Your task to perform on an android device: Search for "lg ultragear" on ebay, select the first entry, and add it to the cart. Image 0: 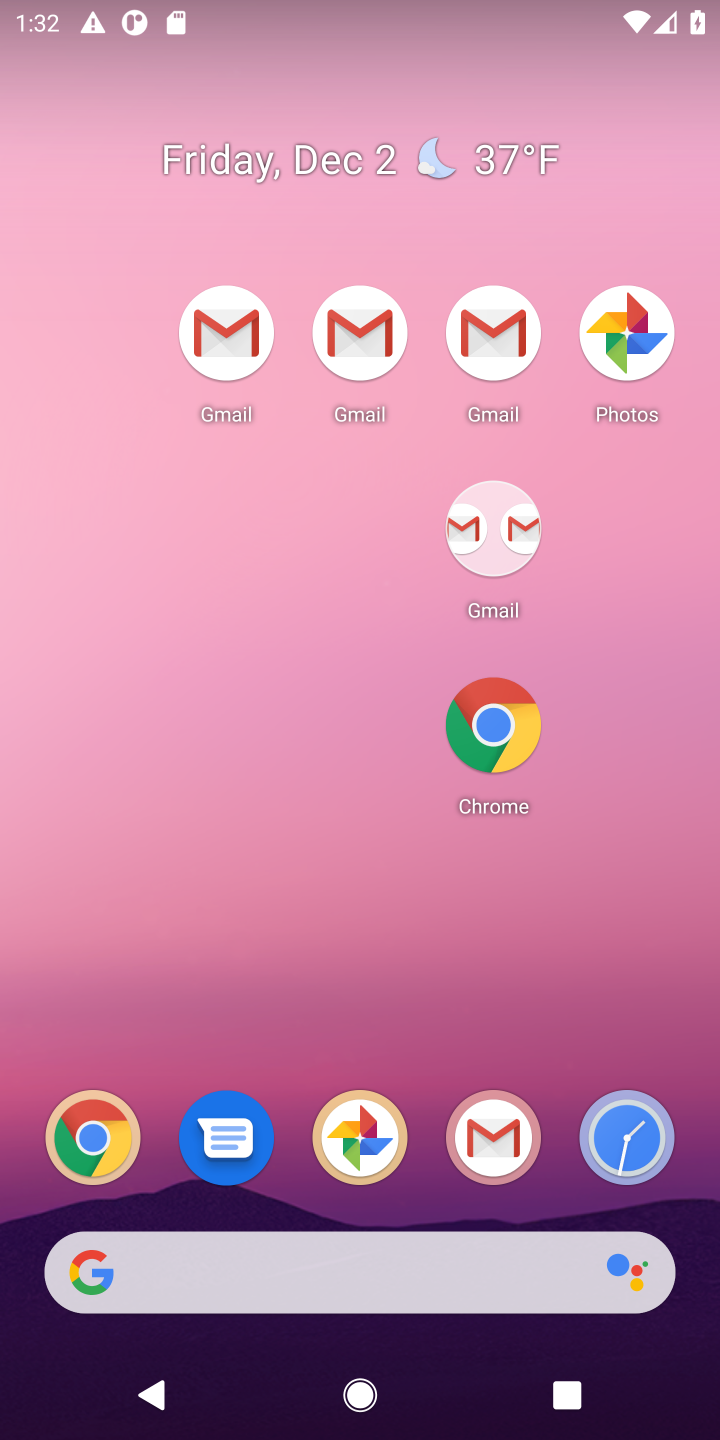
Step 0: drag from (374, 424) to (435, 103)
Your task to perform on an android device: Search for "lg ultragear" on ebay, select the first entry, and add it to the cart. Image 1: 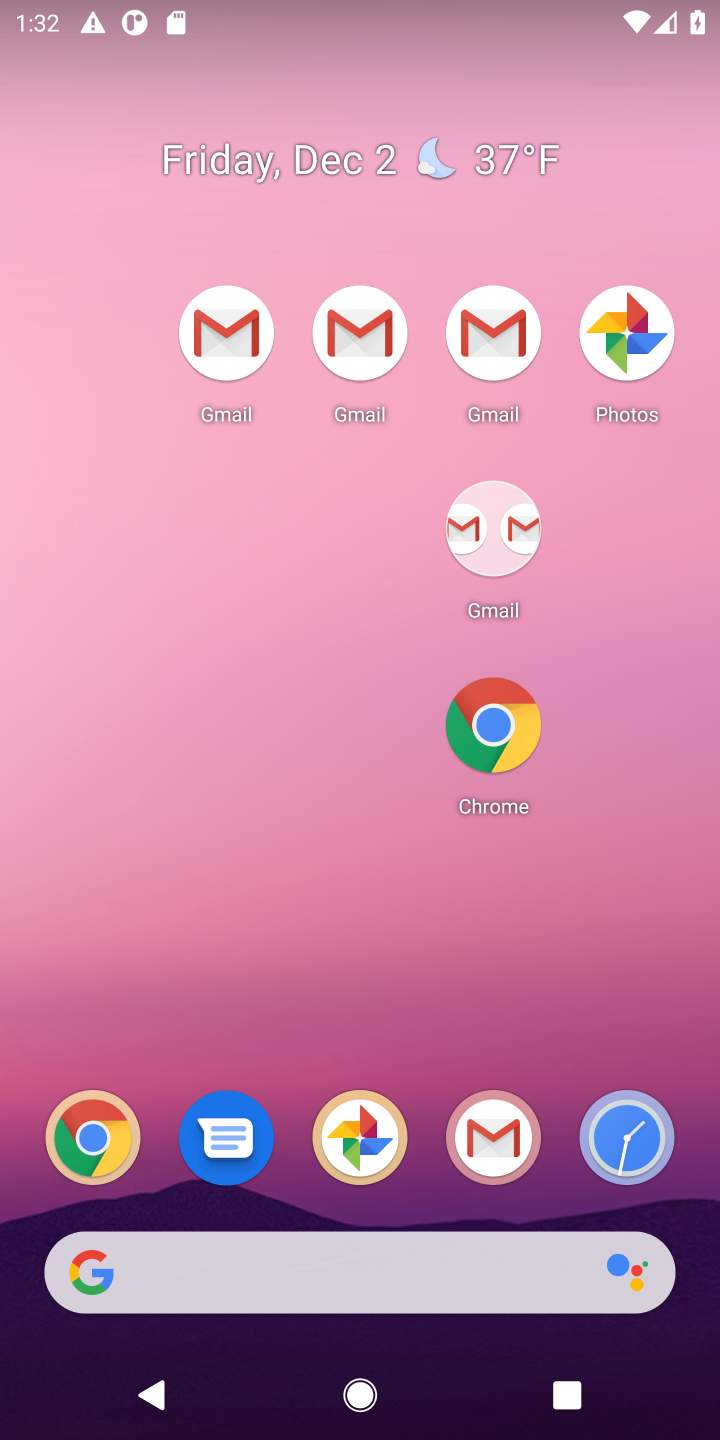
Step 1: drag from (434, 1106) to (404, 626)
Your task to perform on an android device: Search for "lg ultragear" on ebay, select the first entry, and add it to the cart. Image 2: 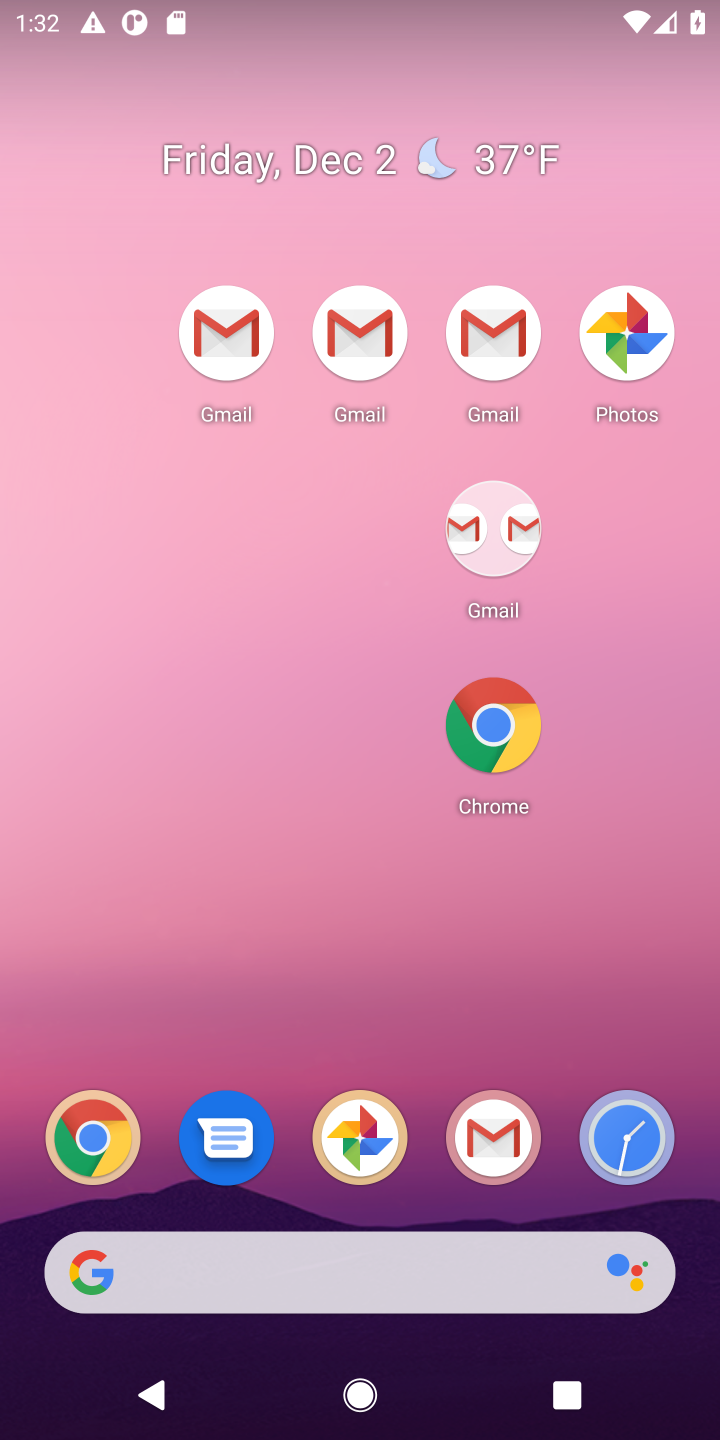
Step 2: drag from (237, 1101) to (333, 250)
Your task to perform on an android device: Search for "lg ultragear" on ebay, select the first entry, and add it to the cart. Image 3: 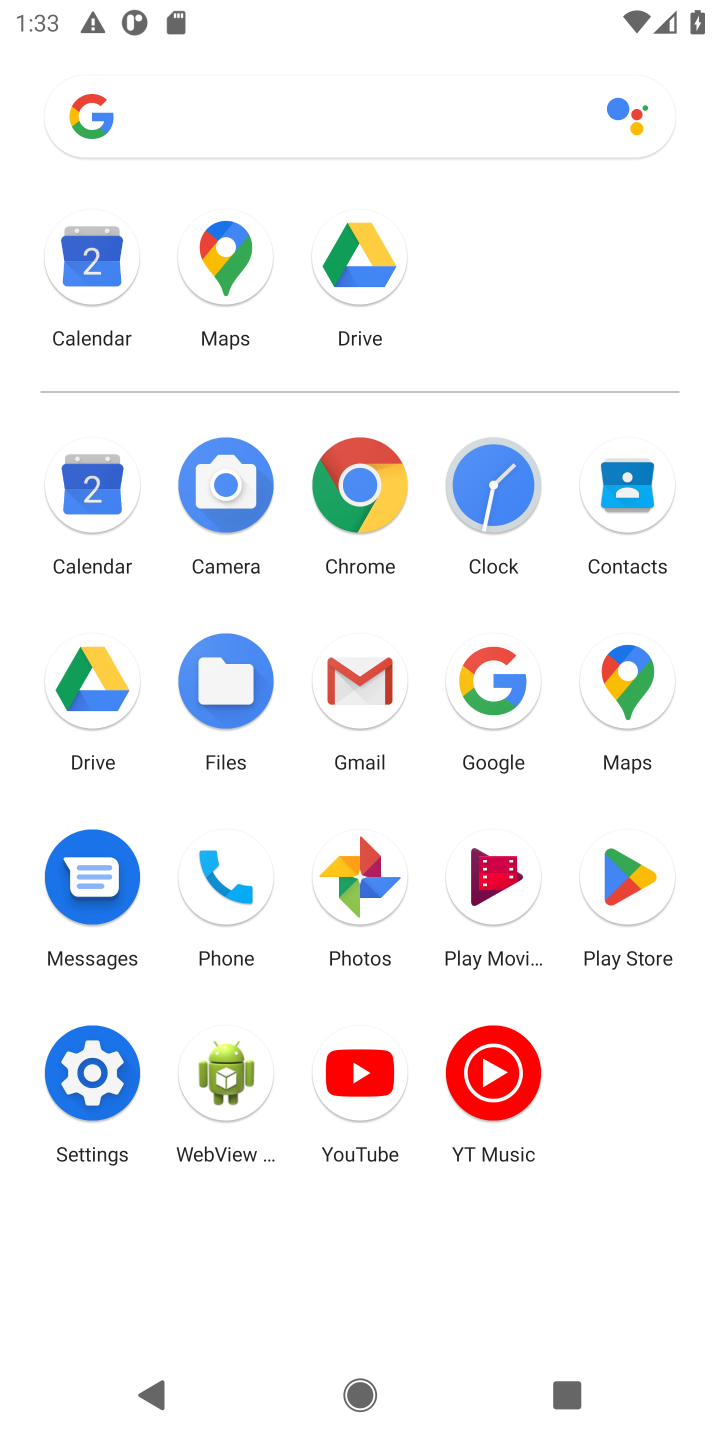
Step 3: click (499, 728)
Your task to perform on an android device: Search for "lg ultragear" on ebay, select the first entry, and add it to the cart. Image 4: 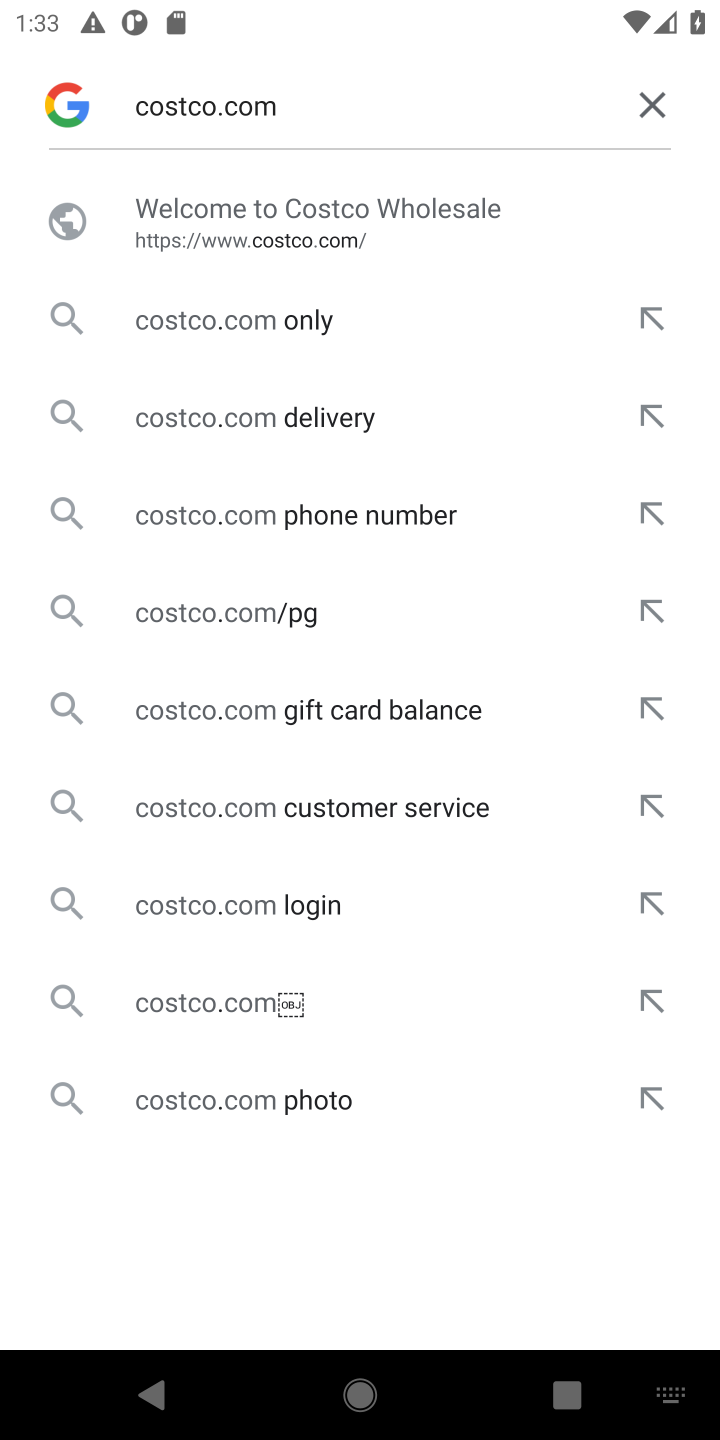
Step 4: click (648, 111)
Your task to perform on an android device: Search for "lg ultragear" on ebay, select the first entry, and add it to the cart. Image 5: 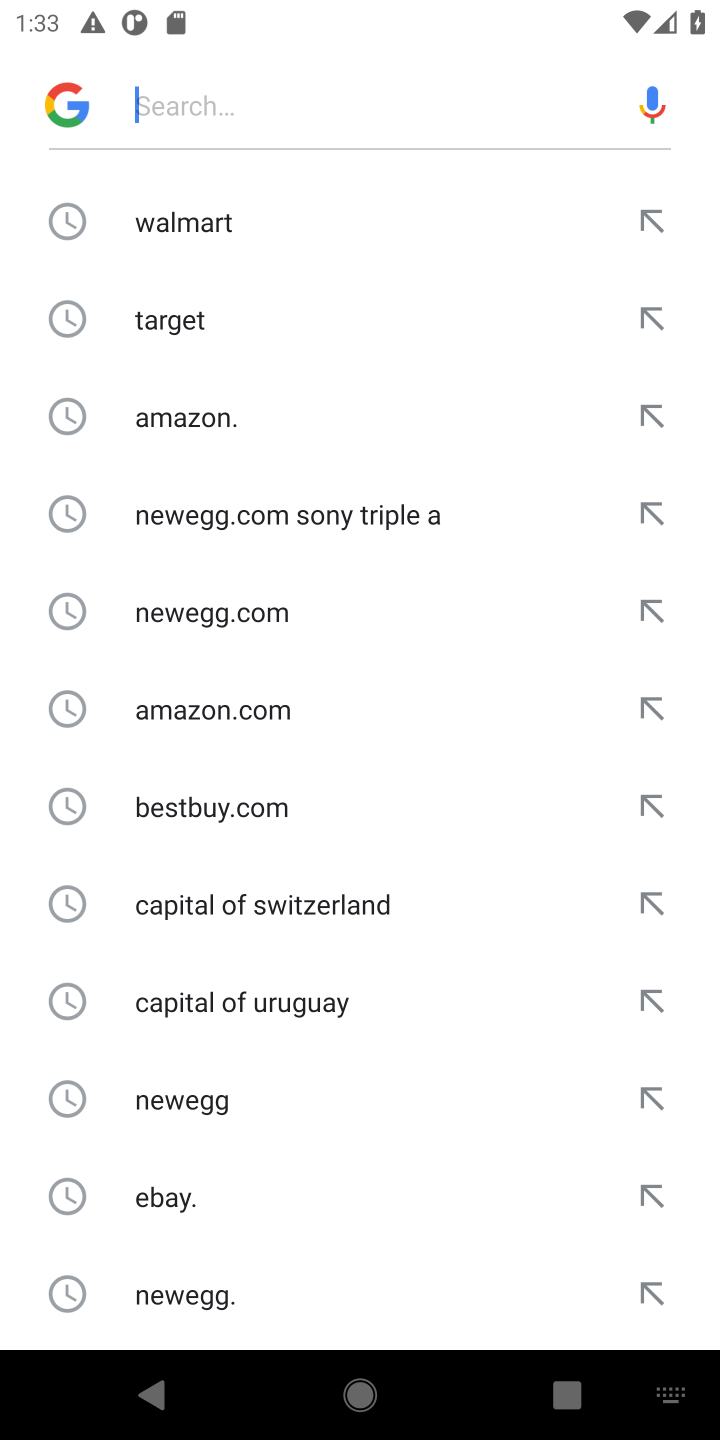
Step 5: click (261, 1193)
Your task to perform on an android device: Search for "lg ultragear" on ebay, select the first entry, and add it to the cart. Image 6: 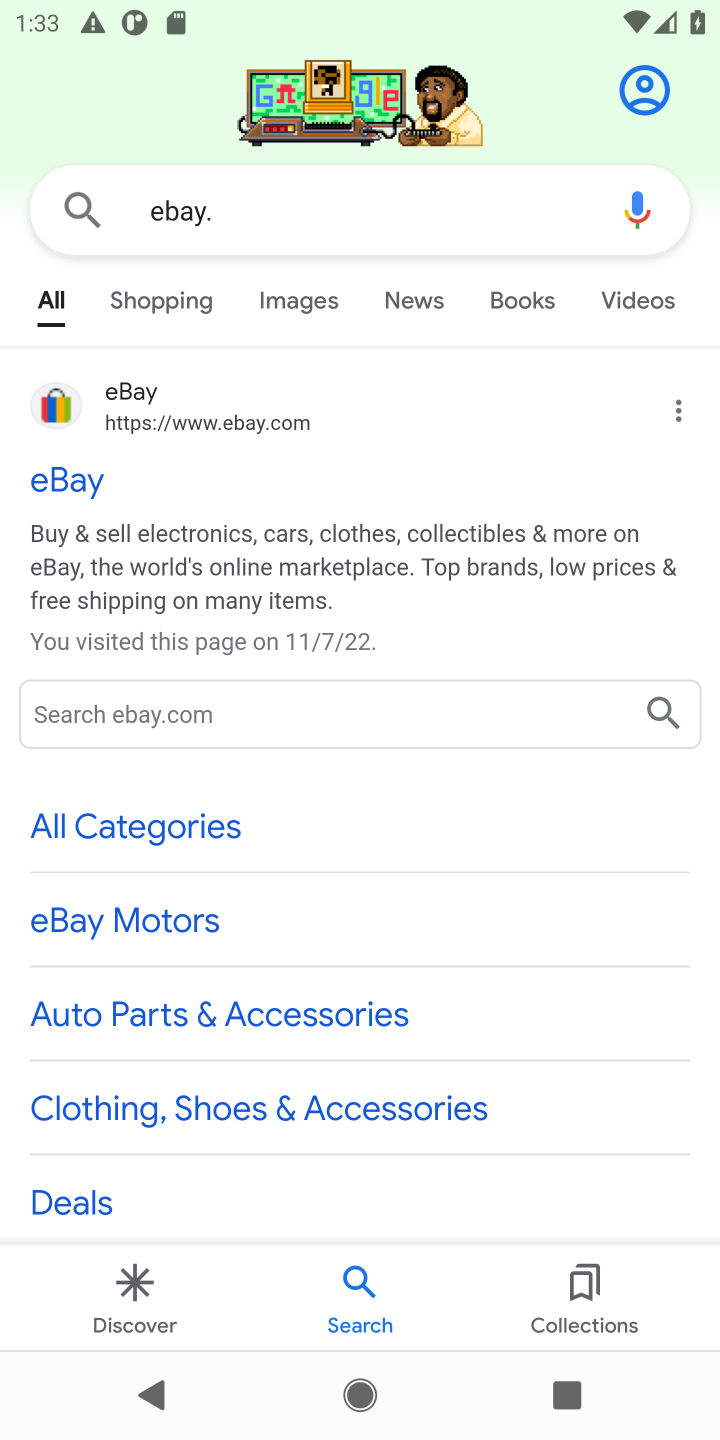
Step 6: click (91, 490)
Your task to perform on an android device: Search for "lg ultragear" on ebay, select the first entry, and add it to the cart. Image 7: 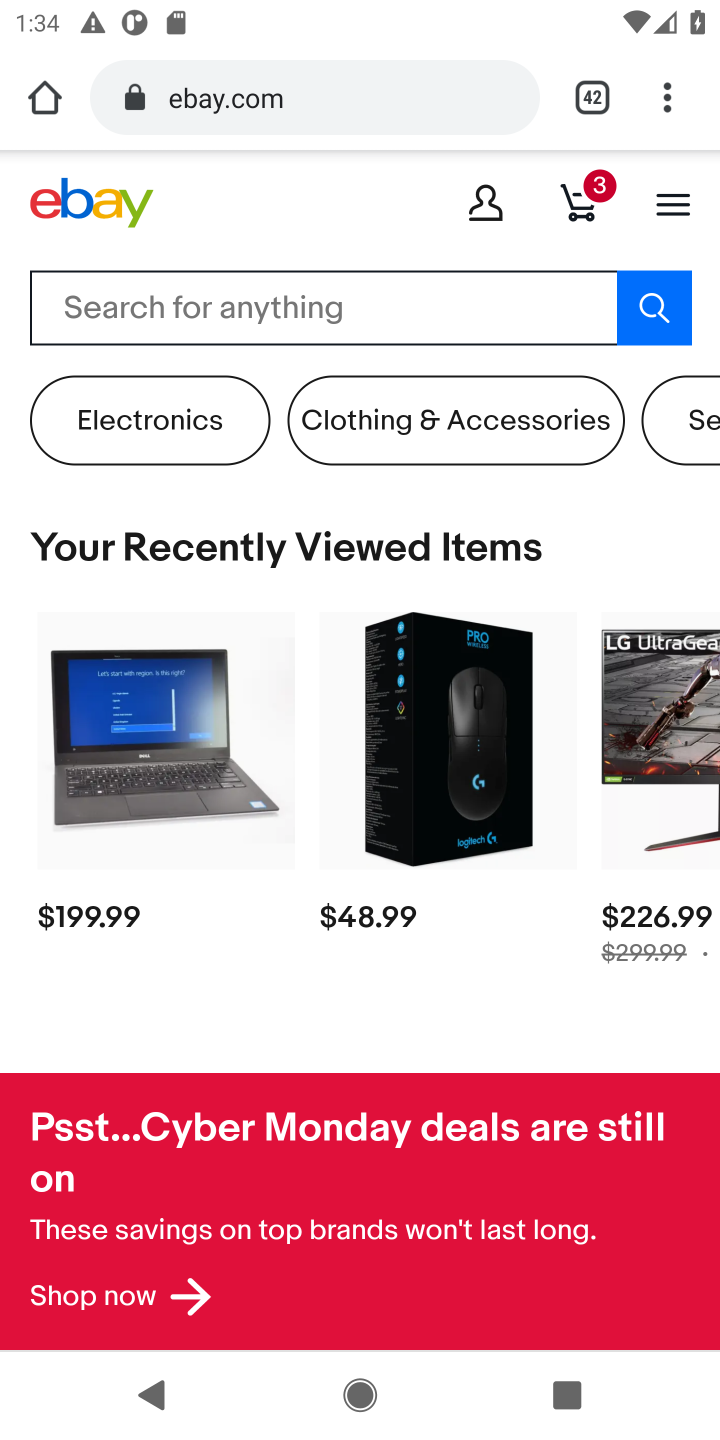
Step 7: click (376, 320)
Your task to perform on an android device: Search for "lg ultragear" on ebay, select the first entry, and add it to the cart. Image 8: 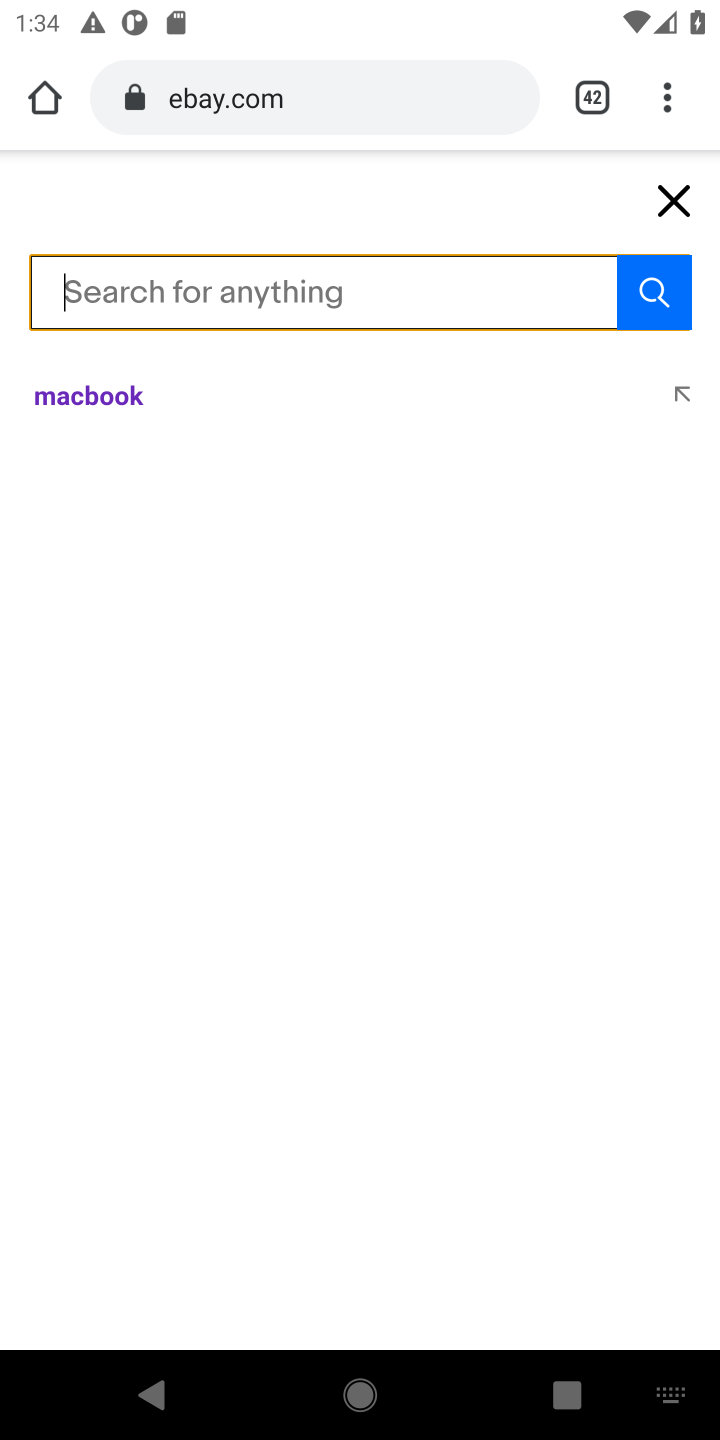
Step 8: type "lg ultragear"
Your task to perform on an android device: Search for "lg ultragear" on ebay, select the first entry, and add it to the cart. Image 9: 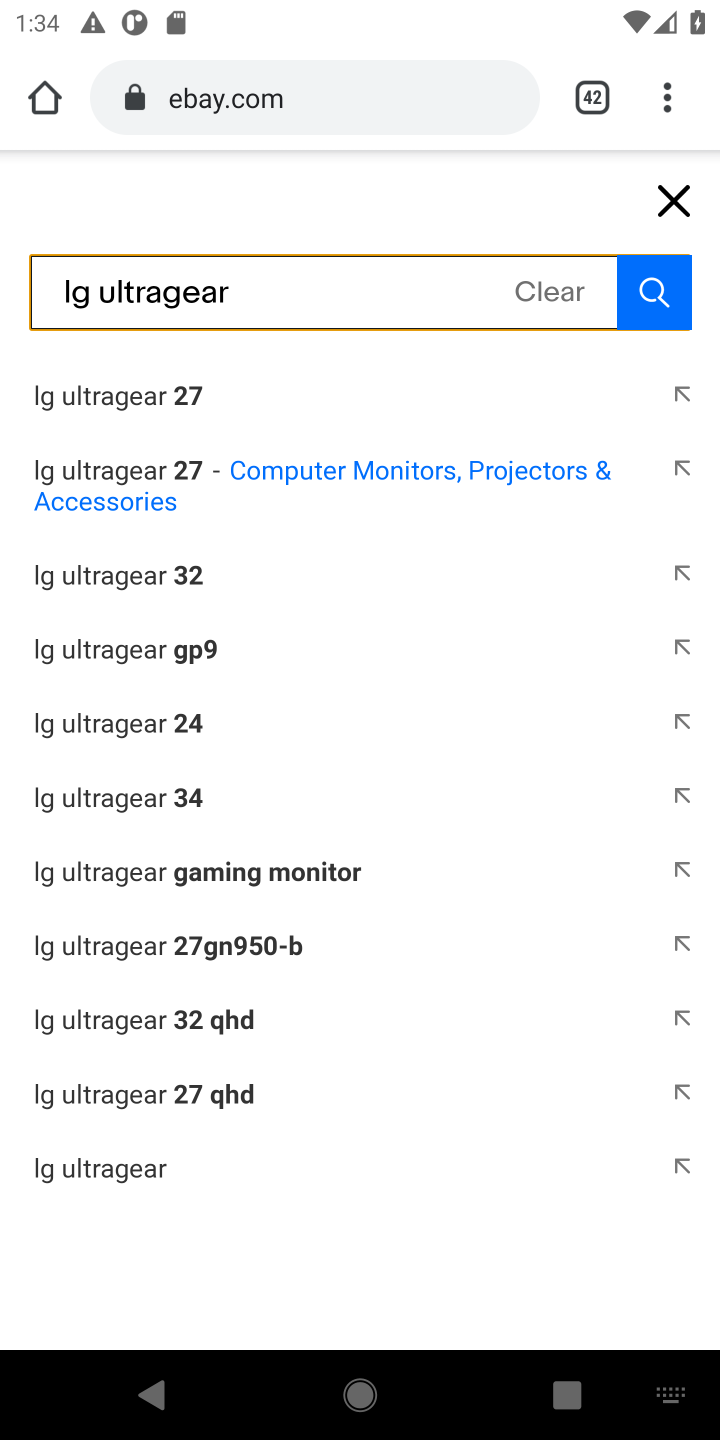
Step 9: click (140, 1164)
Your task to perform on an android device: Search for "lg ultragear" on ebay, select the first entry, and add it to the cart. Image 10: 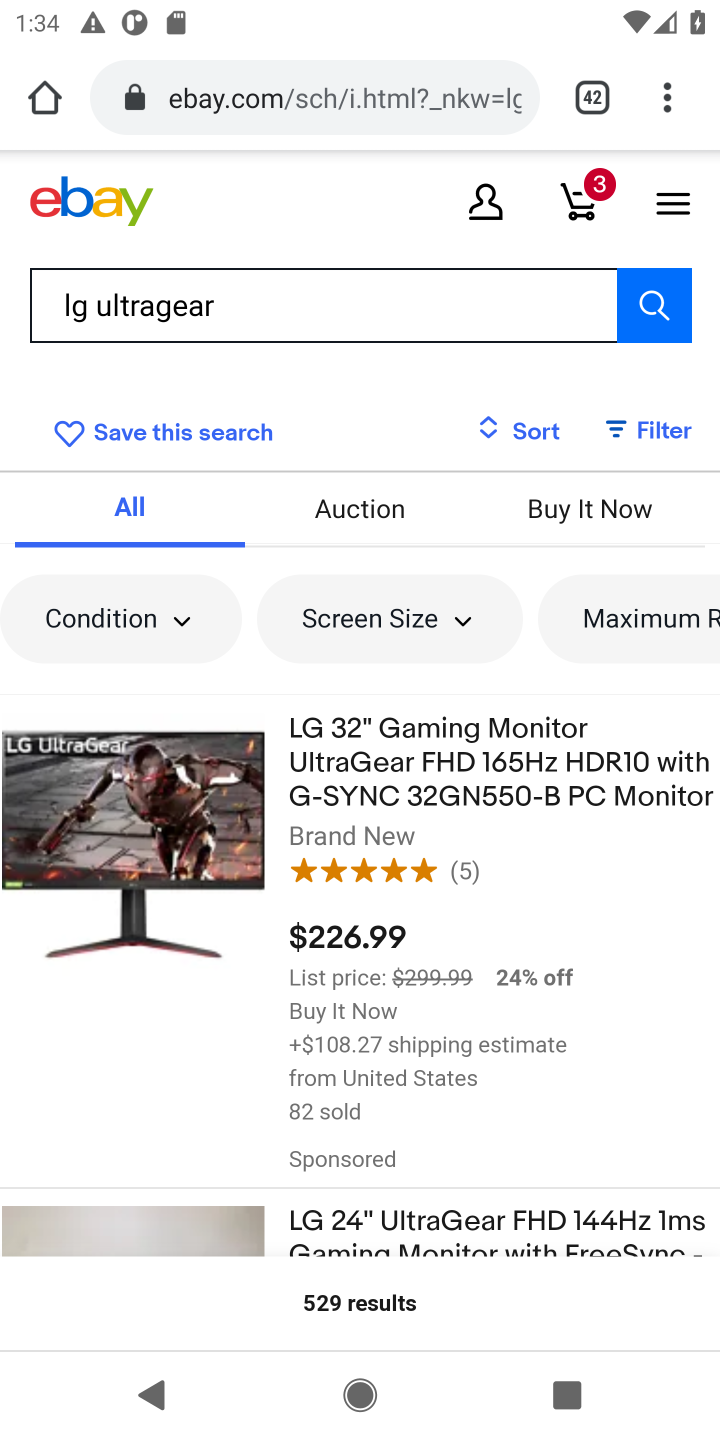
Step 10: click (460, 798)
Your task to perform on an android device: Search for "lg ultragear" on ebay, select the first entry, and add it to the cart. Image 11: 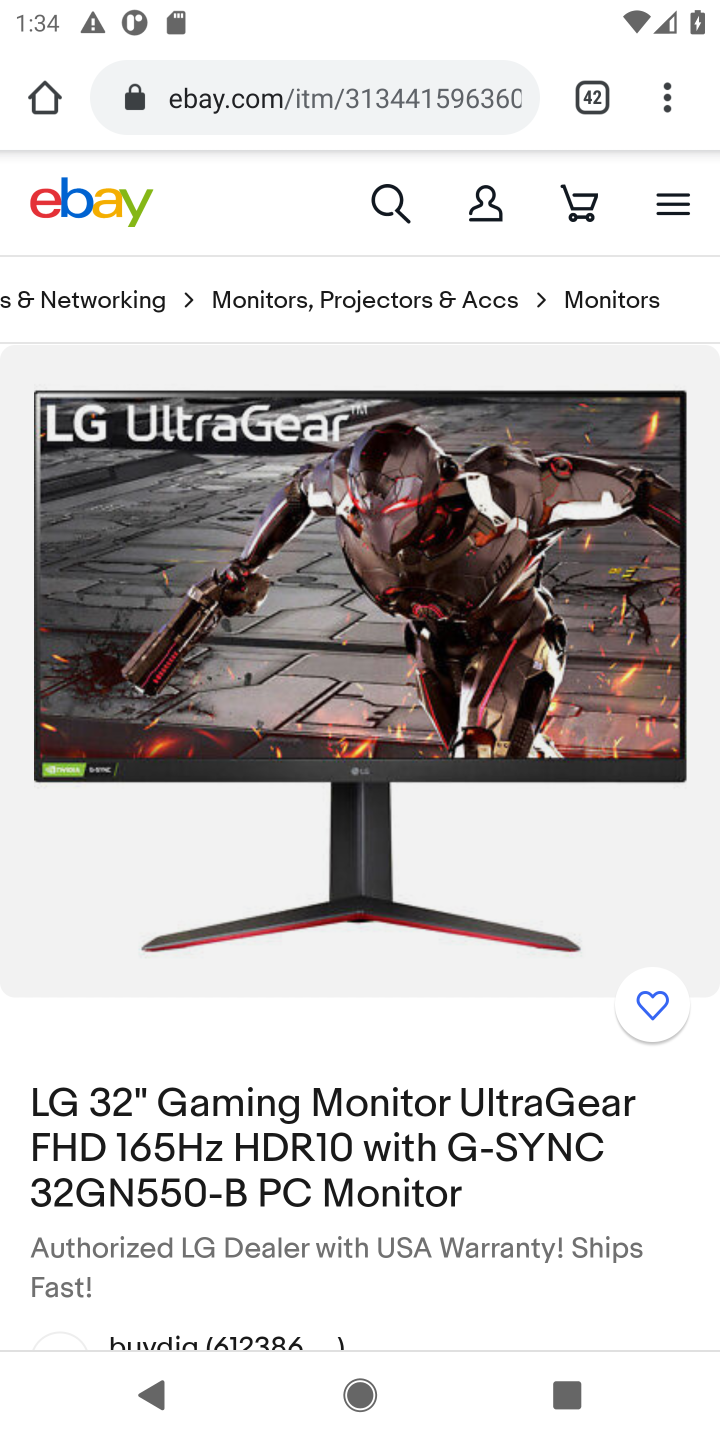
Step 11: drag from (498, 1147) to (526, 707)
Your task to perform on an android device: Search for "lg ultragear" on ebay, select the first entry, and add it to the cart. Image 12: 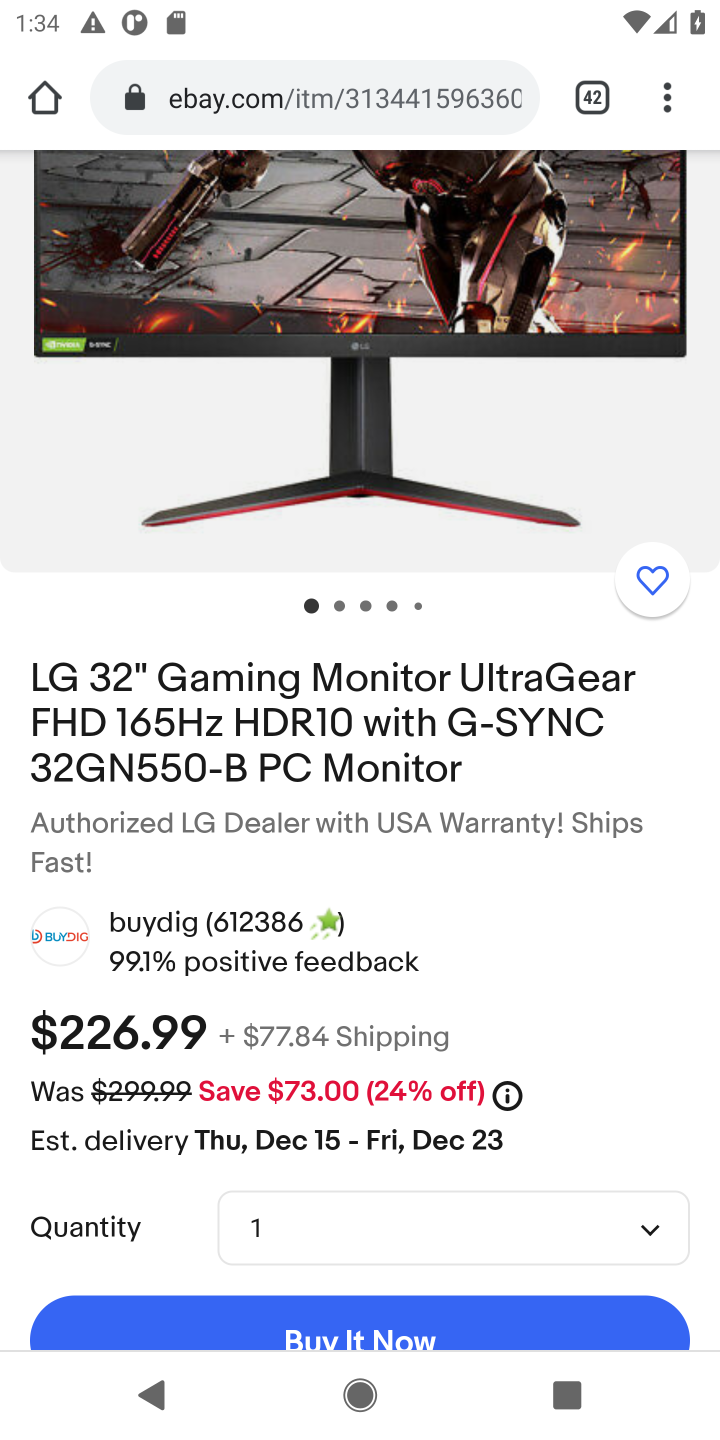
Step 12: drag from (530, 1008) to (485, 688)
Your task to perform on an android device: Search for "lg ultragear" on ebay, select the first entry, and add it to the cart. Image 13: 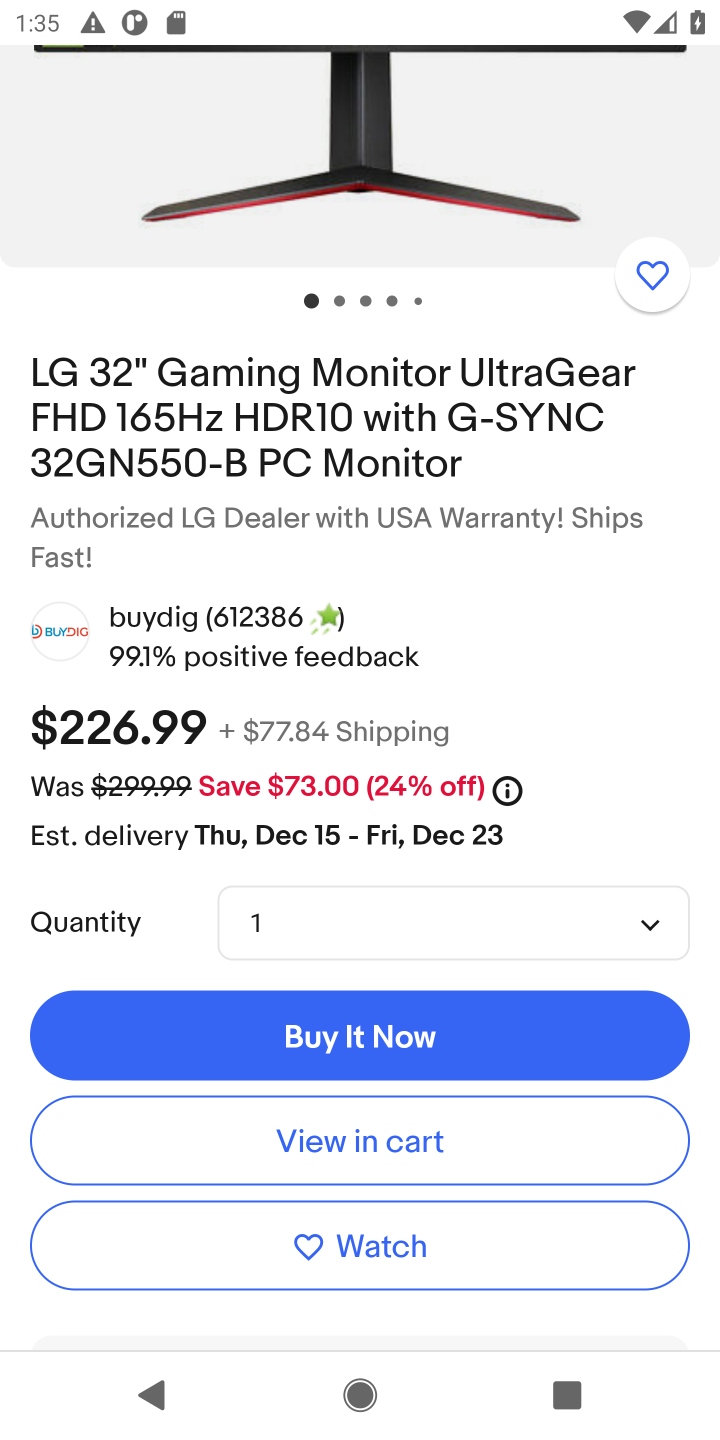
Step 13: click (395, 1147)
Your task to perform on an android device: Search for "lg ultragear" on ebay, select the first entry, and add it to the cart. Image 14: 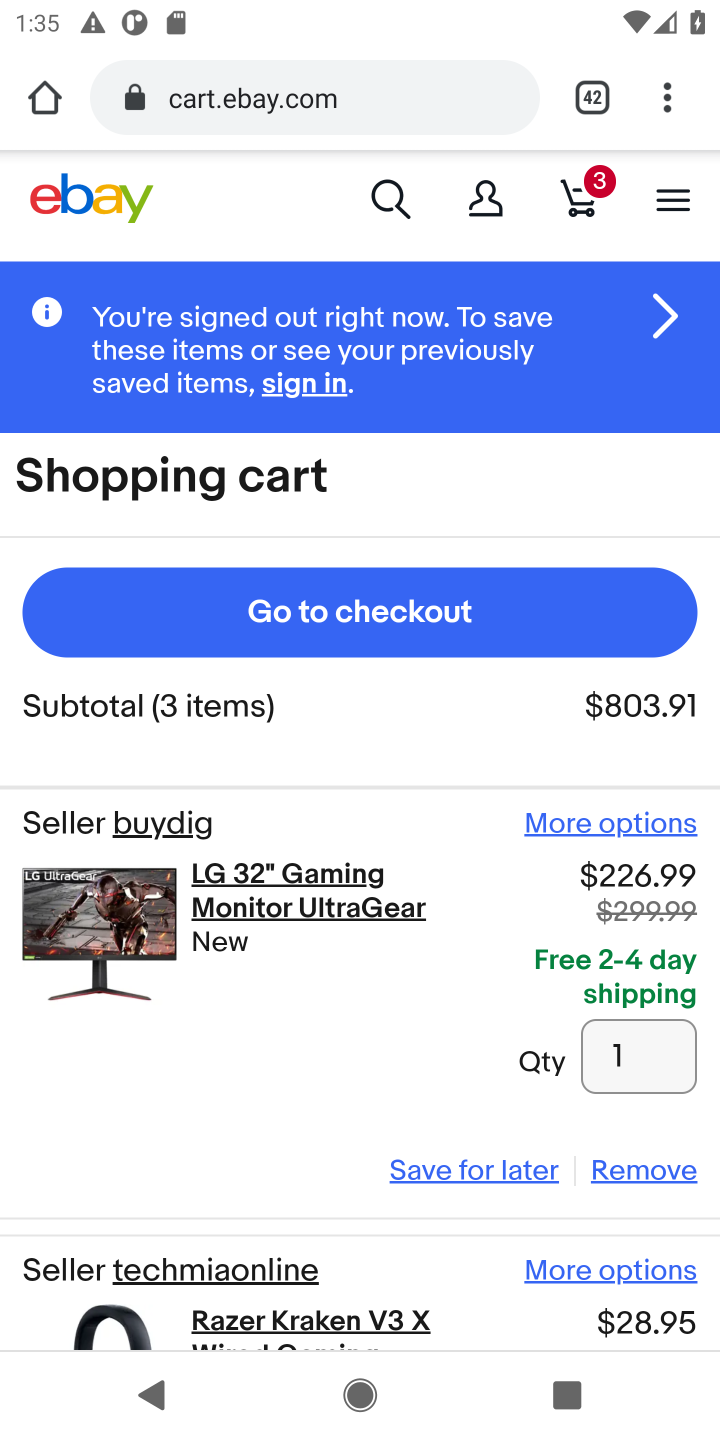
Step 14: task complete